Your task to perform on an android device: Open the calendar and show me this week's events? Image 0: 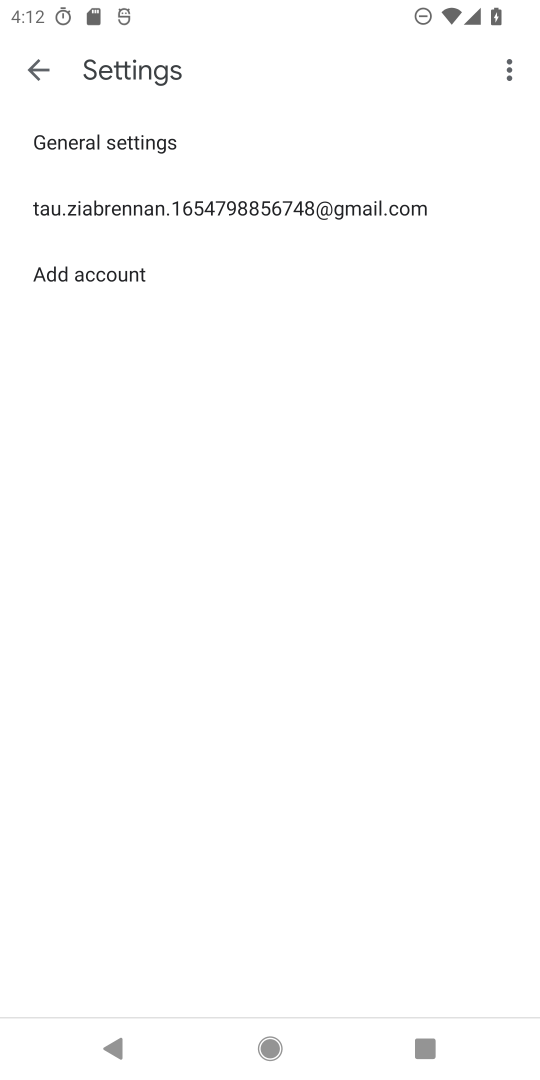
Step 0: press home button
Your task to perform on an android device: Open the calendar and show me this week's events? Image 1: 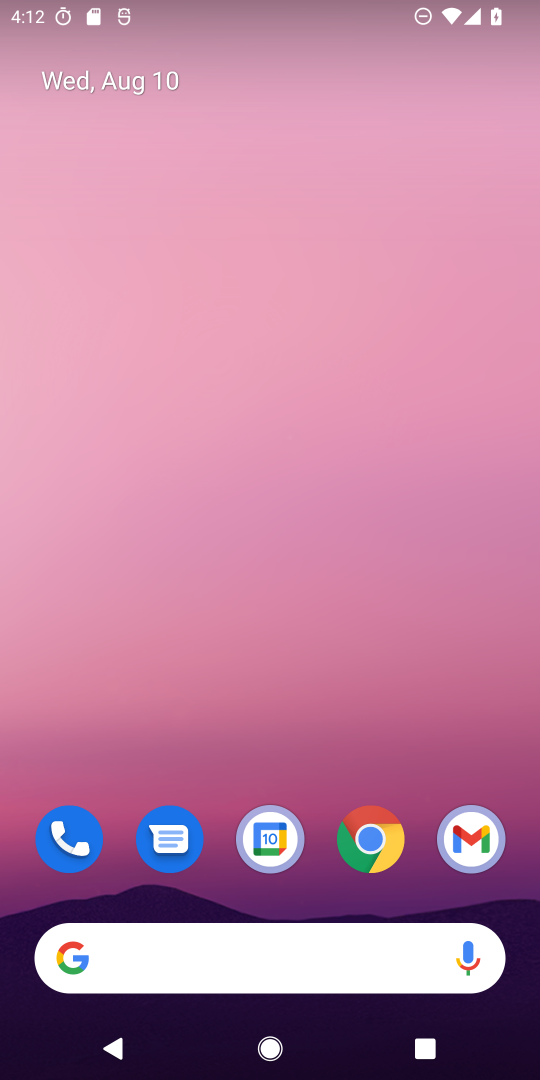
Step 1: click (266, 840)
Your task to perform on an android device: Open the calendar and show me this week's events? Image 2: 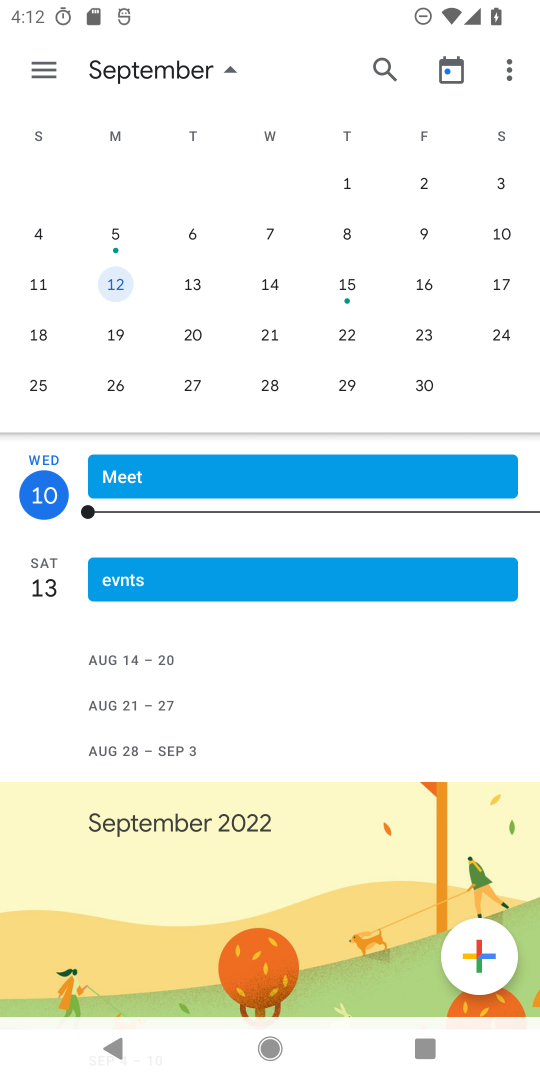
Step 2: drag from (13, 216) to (489, 180)
Your task to perform on an android device: Open the calendar and show me this week's events? Image 3: 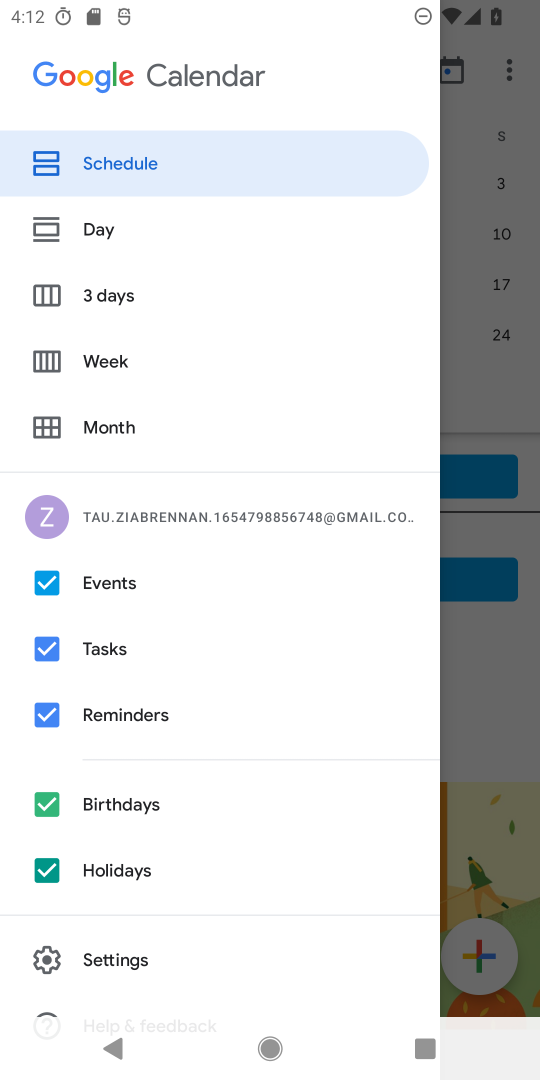
Step 3: click (501, 405)
Your task to perform on an android device: Open the calendar and show me this week's events? Image 4: 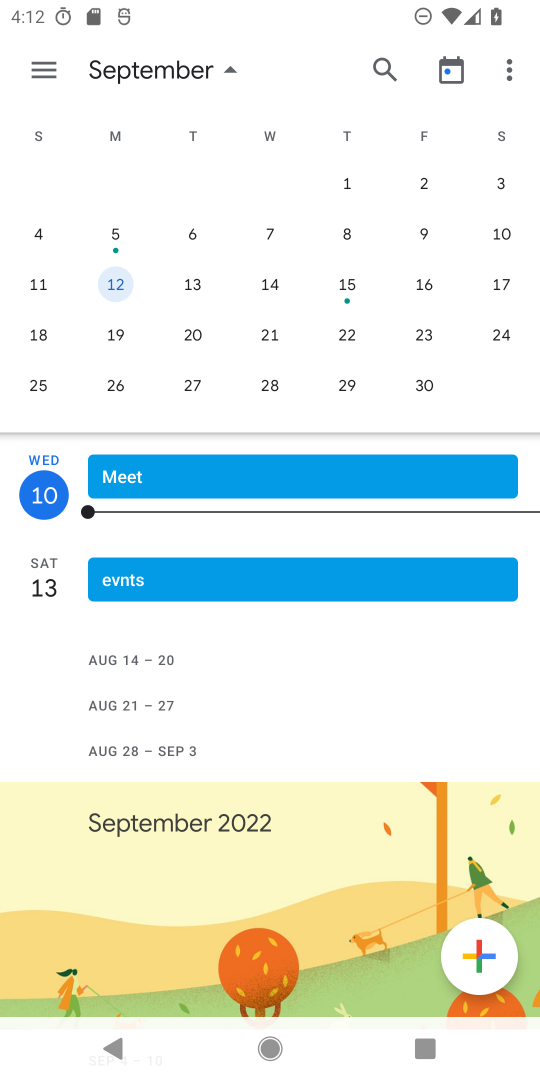
Step 4: drag from (19, 163) to (464, 253)
Your task to perform on an android device: Open the calendar and show me this week's events? Image 5: 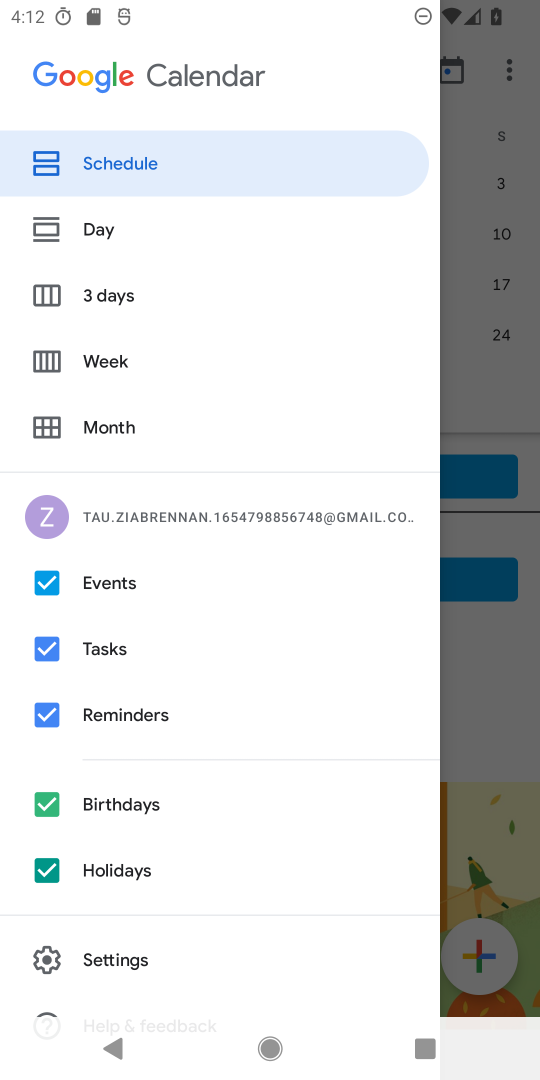
Step 5: click (467, 386)
Your task to perform on an android device: Open the calendar and show me this week's events? Image 6: 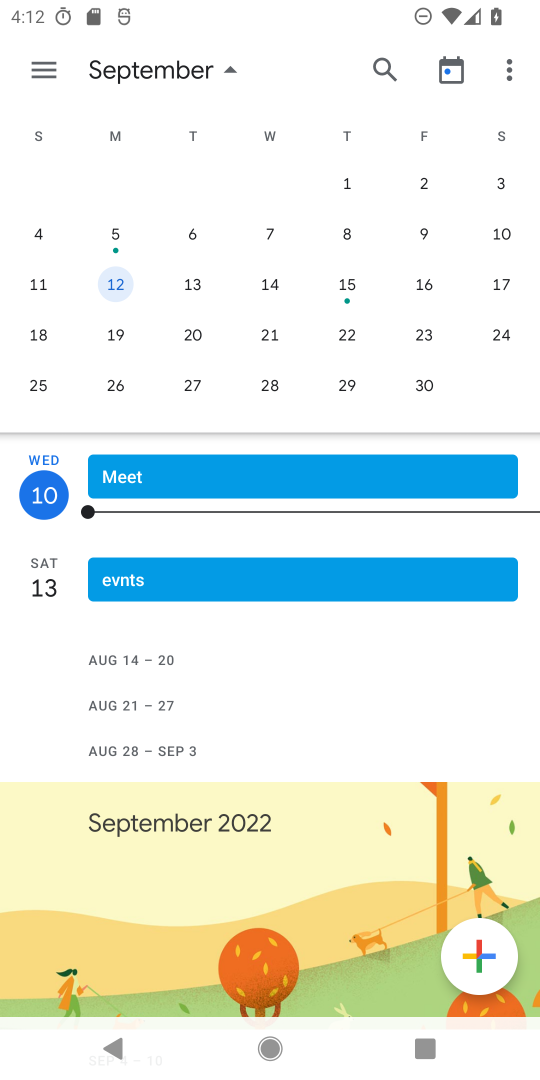
Step 6: click (225, 72)
Your task to perform on an android device: Open the calendar and show me this week's events? Image 7: 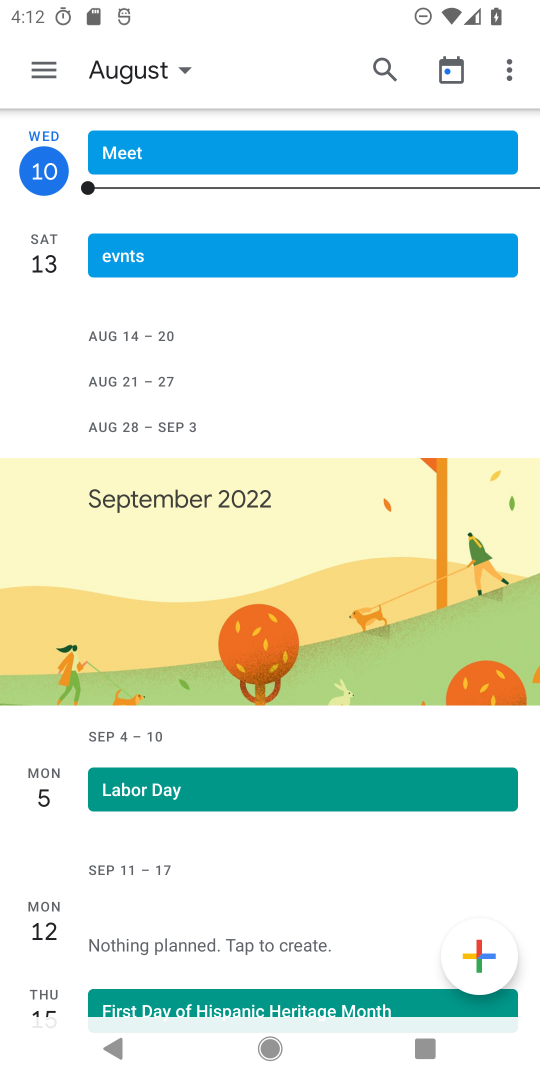
Step 7: click (185, 78)
Your task to perform on an android device: Open the calendar and show me this week's events? Image 8: 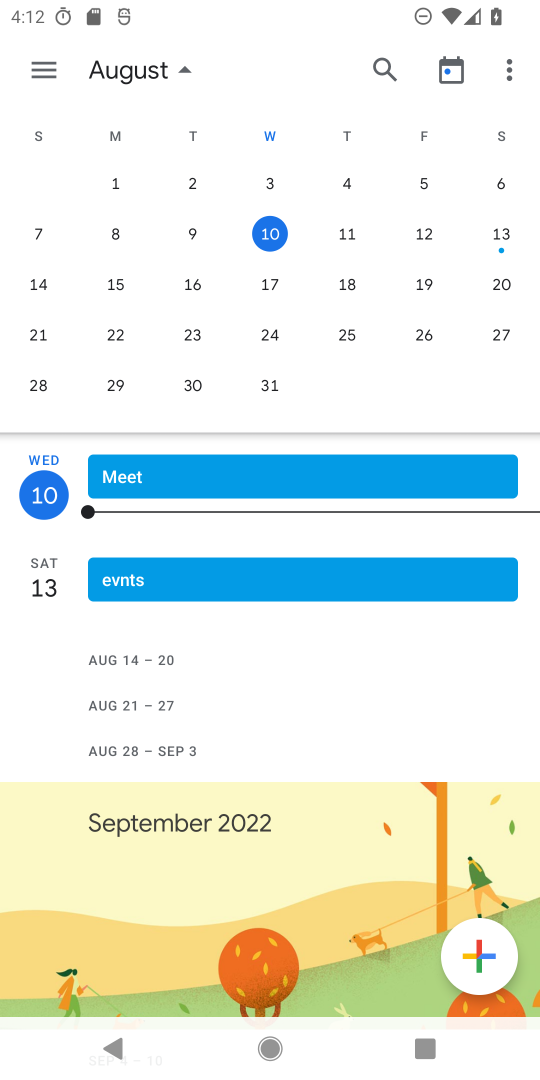
Step 8: task complete